Your task to perform on an android device: turn on showing notifications on the lock screen Image 0: 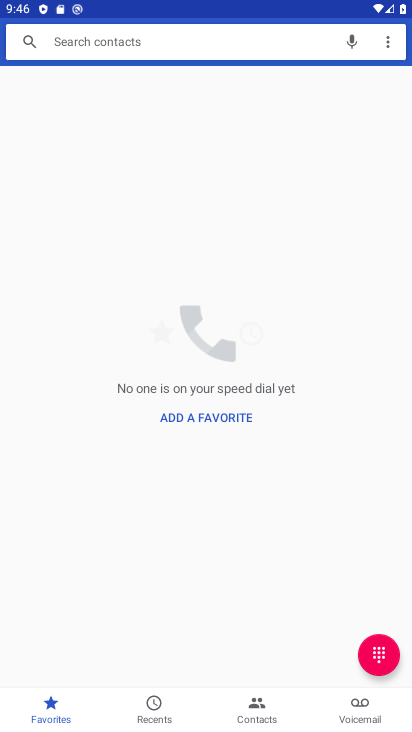
Step 0: press home button
Your task to perform on an android device: turn on showing notifications on the lock screen Image 1: 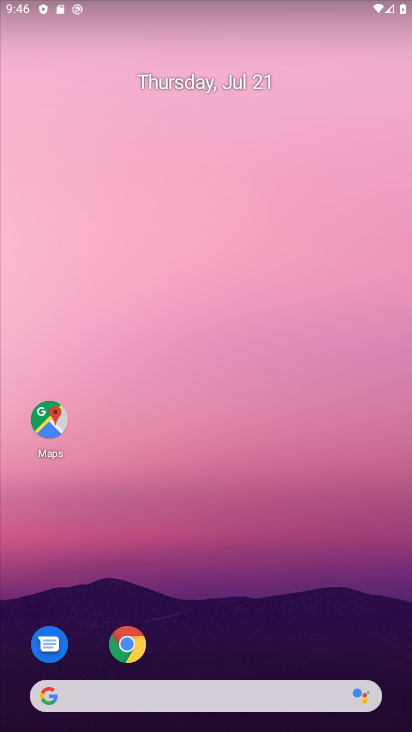
Step 1: drag from (201, 614) to (168, 1)
Your task to perform on an android device: turn on showing notifications on the lock screen Image 2: 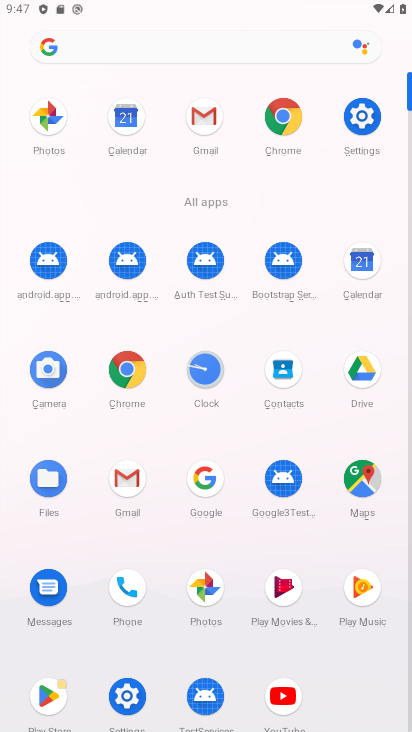
Step 2: click (126, 695)
Your task to perform on an android device: turn on showing notifications on the lock screen Image 3: 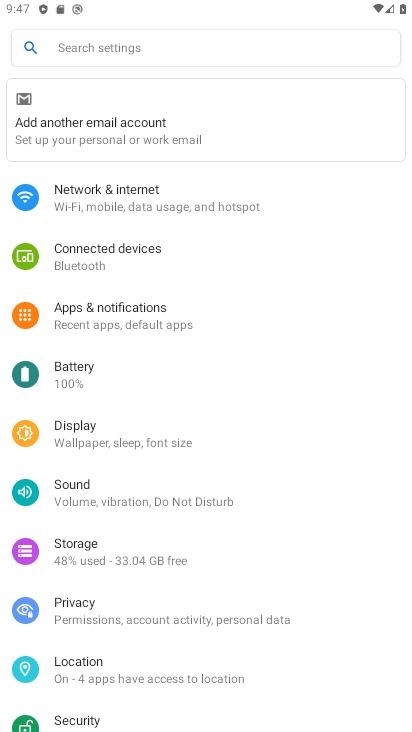
Step 3: click (132, 319)
Your task to perform on an android device: turn on showing notifications on the lock screen Image 4: 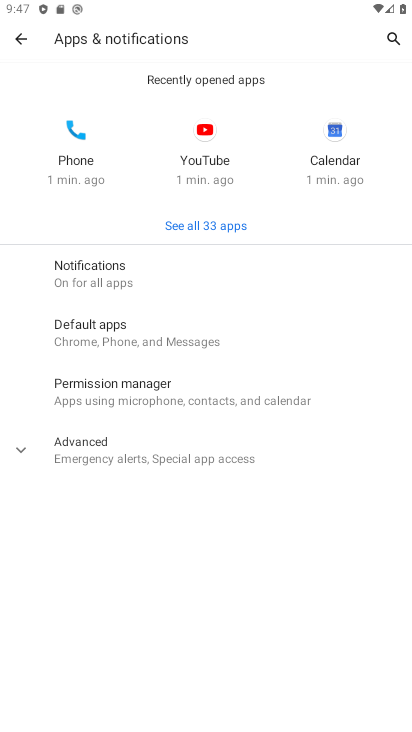
Step 4: click (110, 285)
Your task to perform on an android device: turn on showing notifications on the lock screen Image 5: 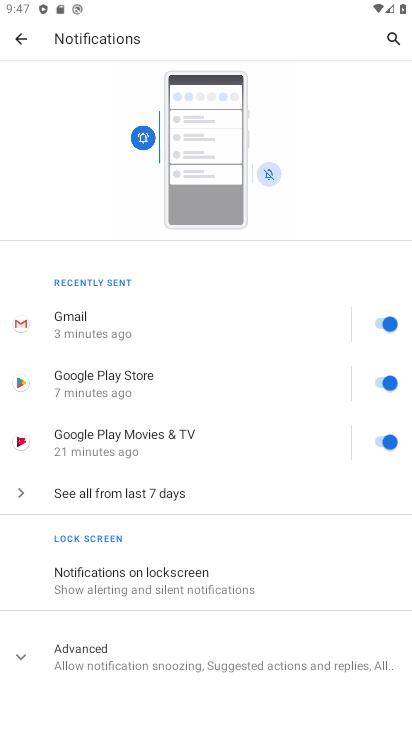
Step 5: click (190, 578)
Your task to perform on an android device: turn on showing notifications on the lock screen Image 6: 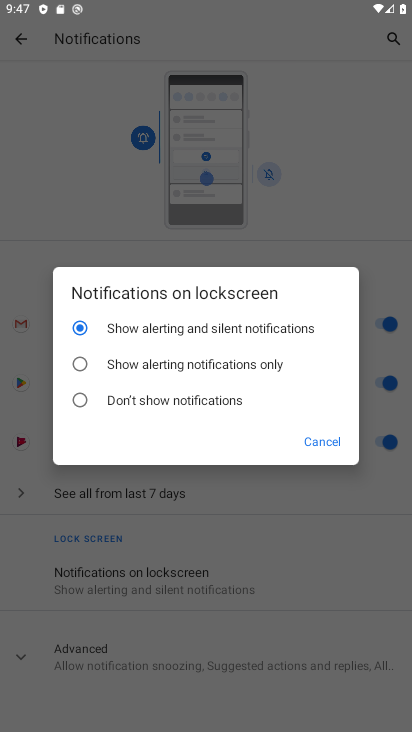
Step 6: click (133, 399)
Your task to perform on an android device: turn on showing notifications on the lock screen Image 7: 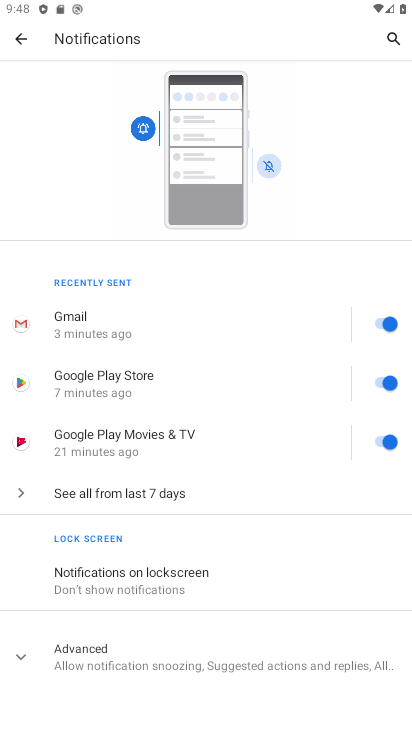
Step 7: task complete